Your task to perform on an android device: Open my contact list Image 0: 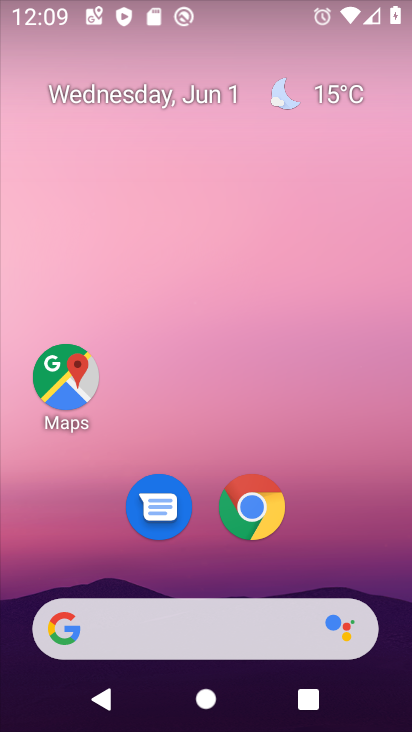
Step 0: drag from (337, 539) to (230, 104)
Your task to perform on an android device: Open my contact list Image 1: 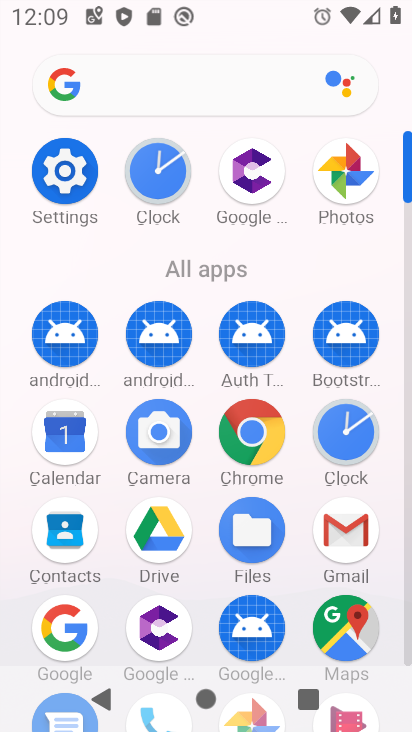
Step 1: drag from (206, 423) to (210, 260)
Your task to perform on an android device: Open my contact list Image 2: 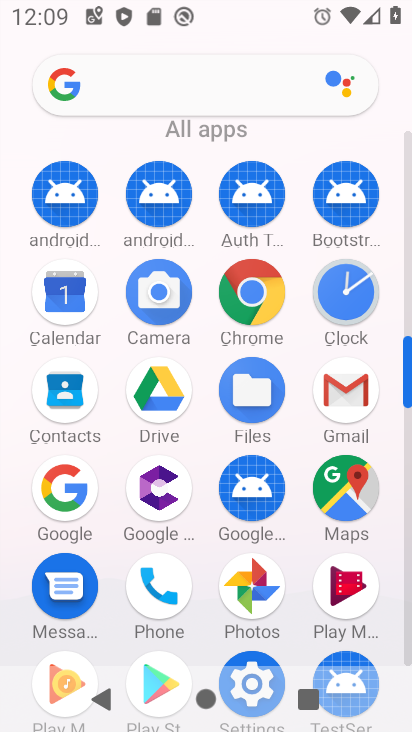
Step 2: click (65, 393)
Your task to perform on an android device: Open my contact list Image 3: 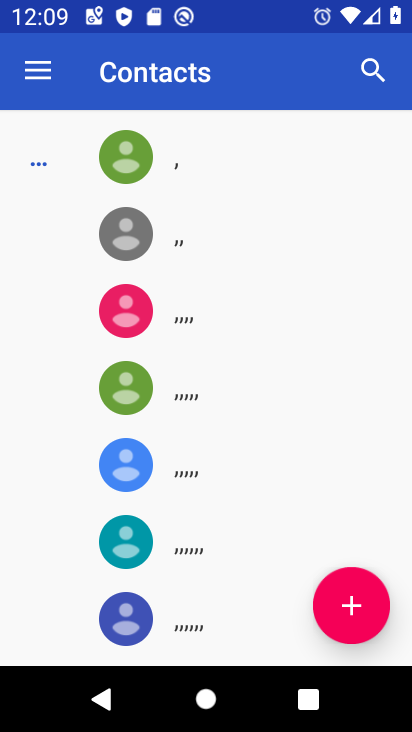
Step 3: task complete